Your task to perform on an android device: Open the web browser Image 0: 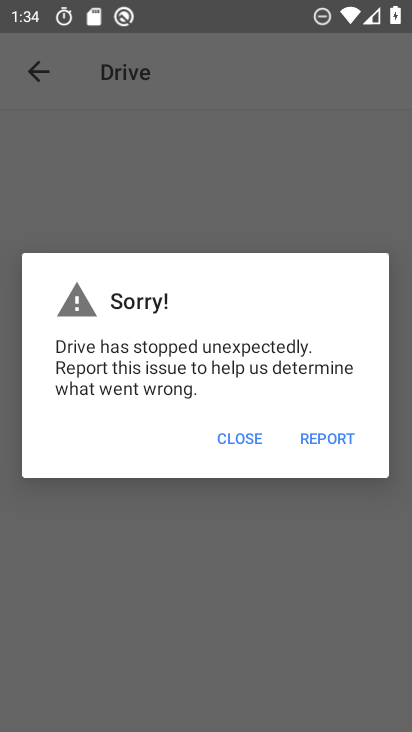
Step 0: press home button
Your task to perform on an android device: Open the web browser Image 1: 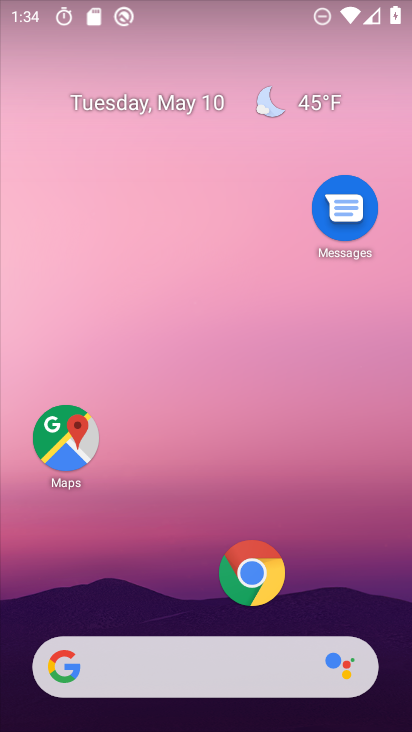
Step 1: drag from (200, 583) to (264, 173)
Your task to perform on an android device: Open the web browser Image 2: 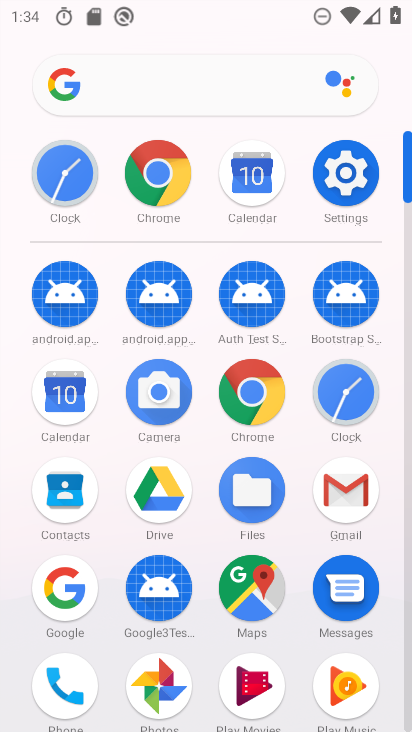
Step 2: drag from (215, 650) to (224, 539)
Your task to perform on an android device: Open the web browser Image 3: 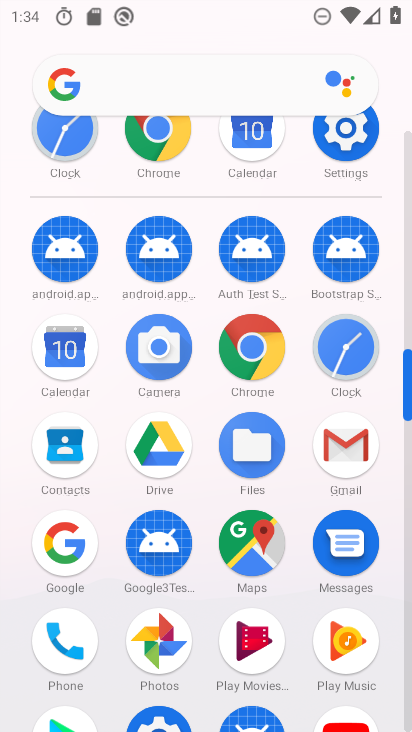
Step 3: click (177, 132)
Your task to perform on an android device: Open the web browser Image 4: 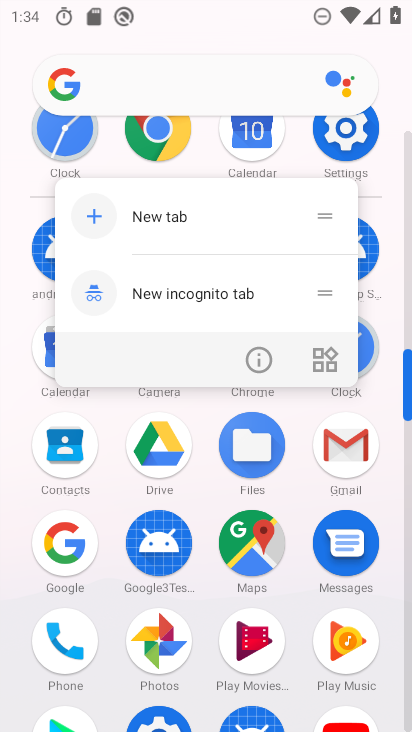
Step 4: click (252, 360)
Your task to perform on an android device: Open the web browser Image 5: 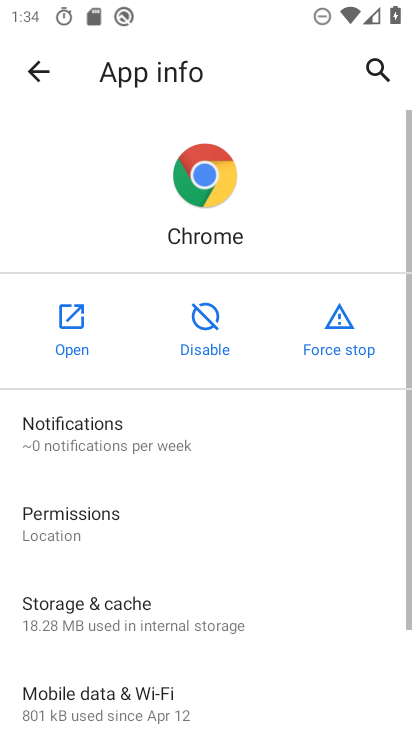
Step 5: click (84, 322)
Your task to perform on an android device: Open the web browser Image 6: 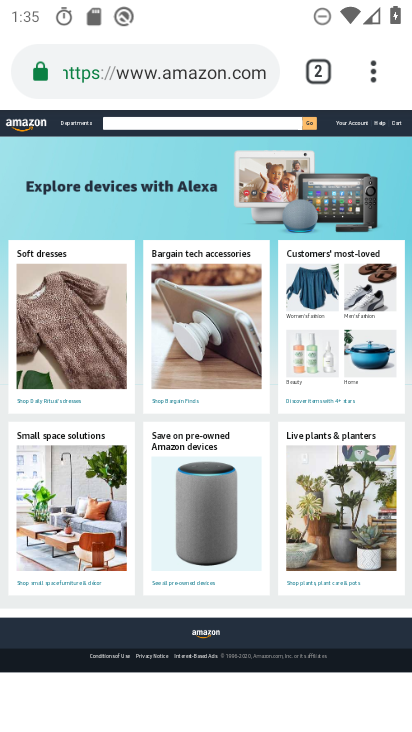
Step 6: click (372, 79)
Your task to perform on an android device: Open the web browser Image 7: 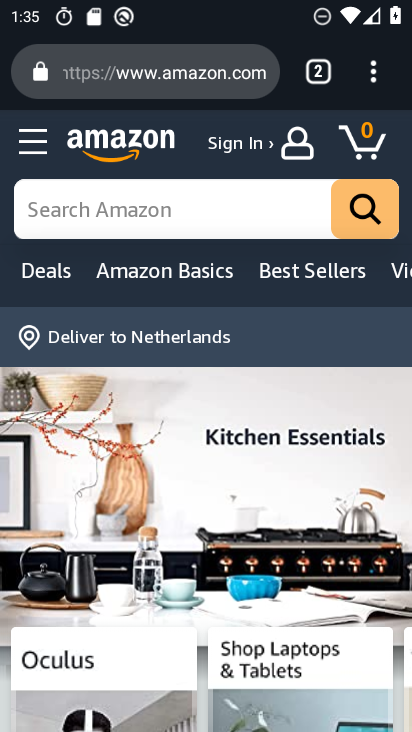
Step 7: task complete